Your task to perform on an android device: clear all cookies in the chrome app Image 0: 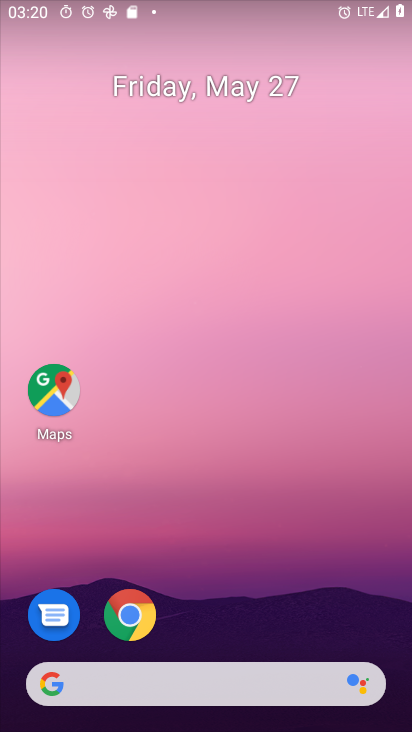
Step 0: drag from (367, 636) to (368, 135)
Your task to perform on an android device: clear all cookies in the chrome app Image 1: 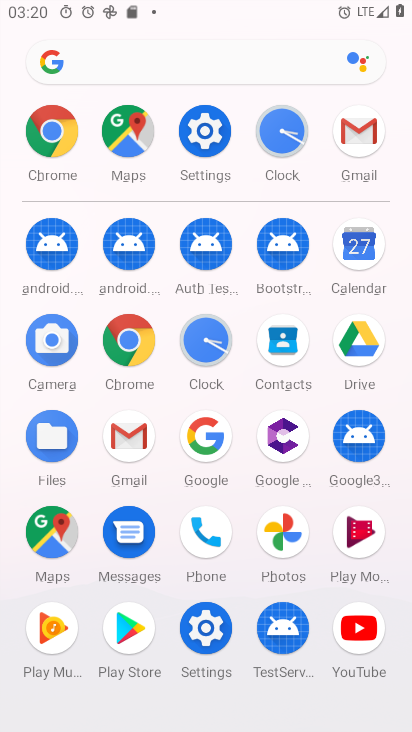
Step 1: click (133, 361)
Your task to perform on an android device: clear all cookies in the chrome app Image 2: 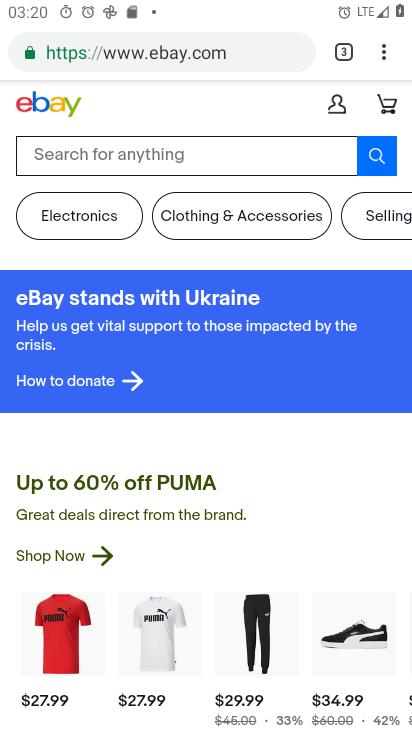
Step 2: click (382, 57)
Your task to perform on an android device: clear all cookies in the chrome app Image 3: 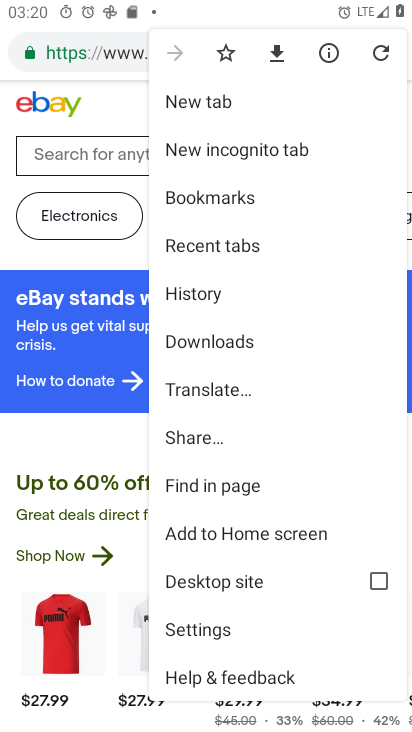
Step 3: click (222, 635)
Your task to perform on an android device: clear all cookies in the chrome app Image 4: 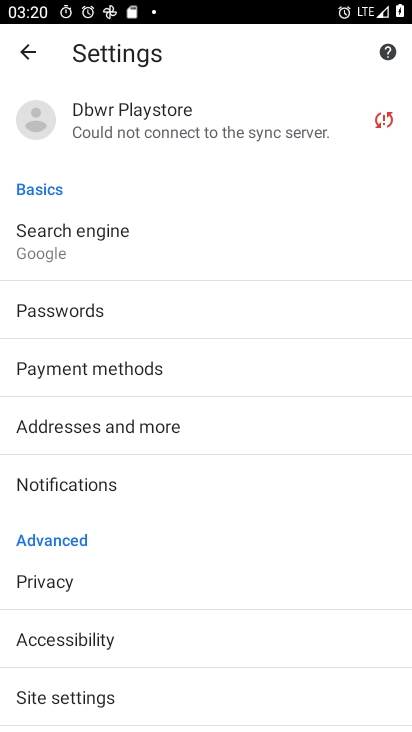
Step 4: drag from (233, 603) to (244, 528)
Your task to perform on an android device: clear all cookies in the chrome app Image 5: 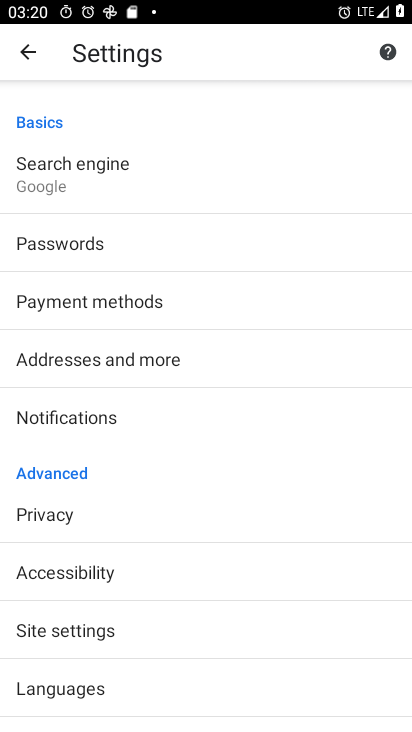
Step 5: drag from (245, 638) to (254, 538)
Your task to perform on an android device: clear all cookies in the chrome app Image 6: 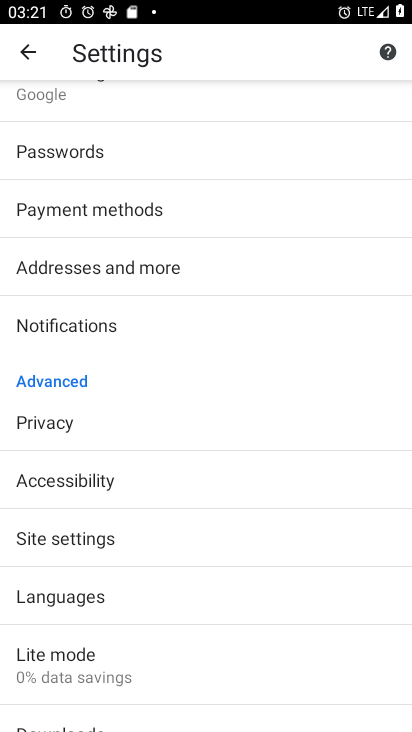
Step 6: drag from (302, 673) to (308, 487)
Your task to perform on an android device: clear all cookies in the chrome app Image 7: 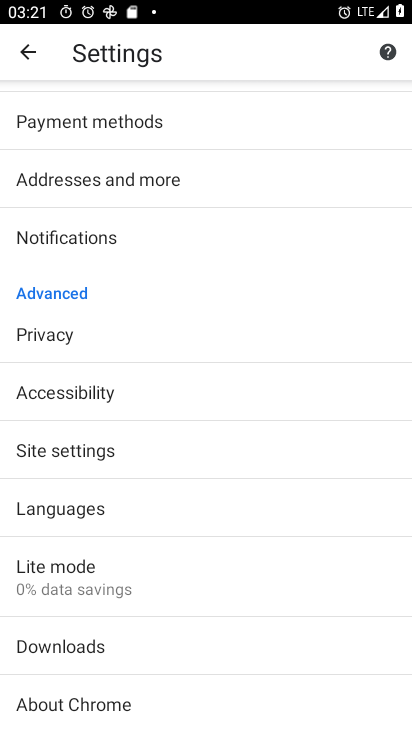
Step 7: drag from (307, 657) to (311, 460)
Your task to perform on an android device: clear all cookies in the chrome app Image 8: 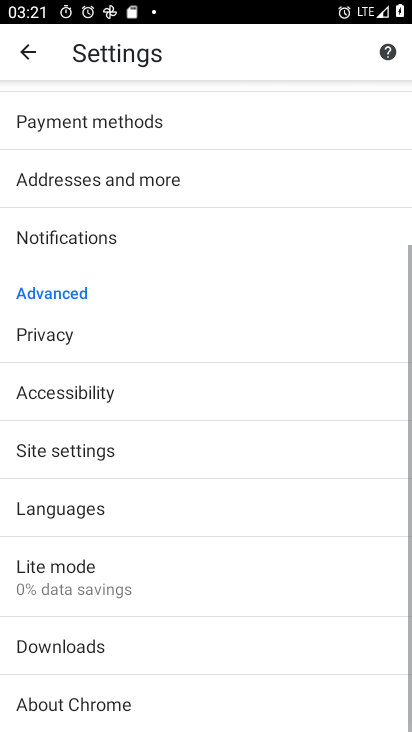
Step 8: drag from (311, 425) to (310, 562)
Your task to perform on an android device: clear all cookies in the chrome app Image 9: 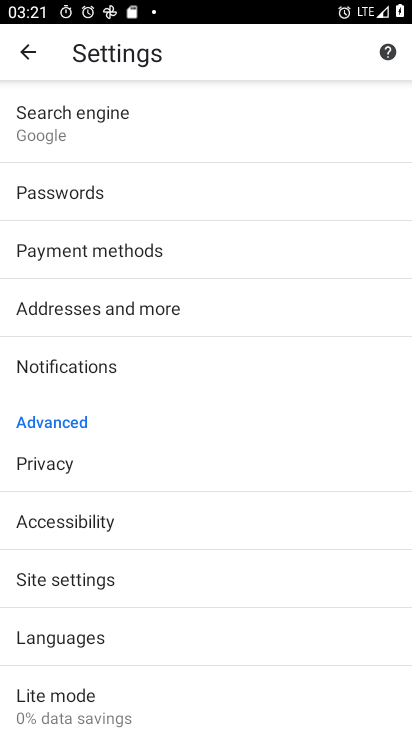
Step 9: click (262, 473)
Your task to perform on an android device: clear all cookies in the chrome app Image 10: 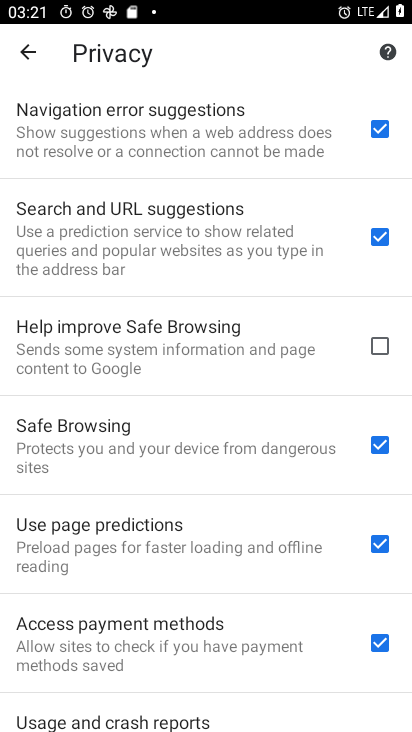
Step 10: drag from (298, 588) to (303, 513)
Your task to perform on an android device: clear all cookies in the chrome app Image 11: 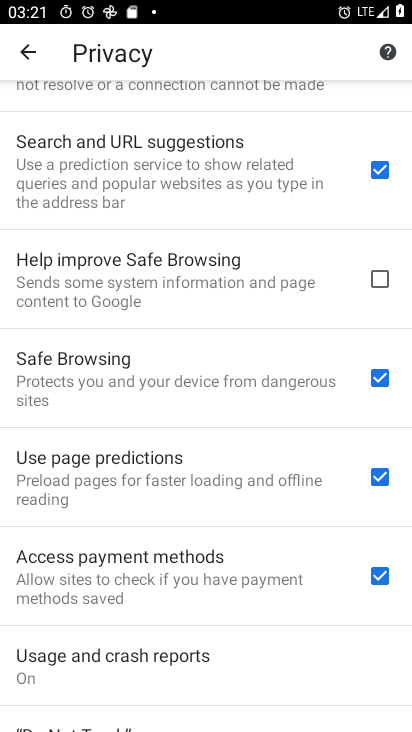
Step 11: drag from (328, 611) to (331, 488)
Your task to perform on an android device: clear all cookies in the chrome app Image 12: 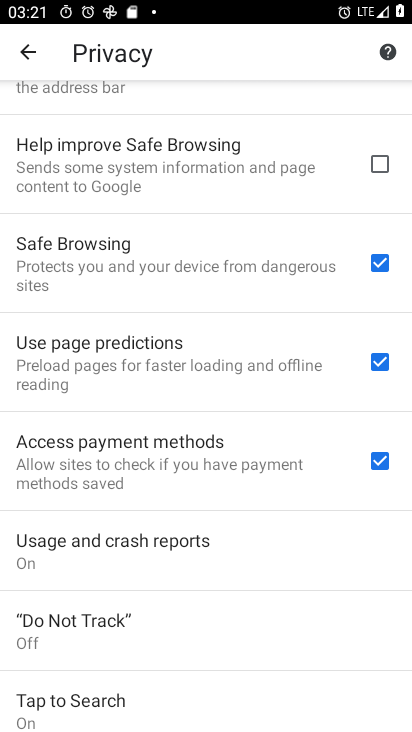
Step 12: drag from (323, 568) to (321, 501)
Your task to perform on an android device: clear all cookies in the chrome app Image 13: 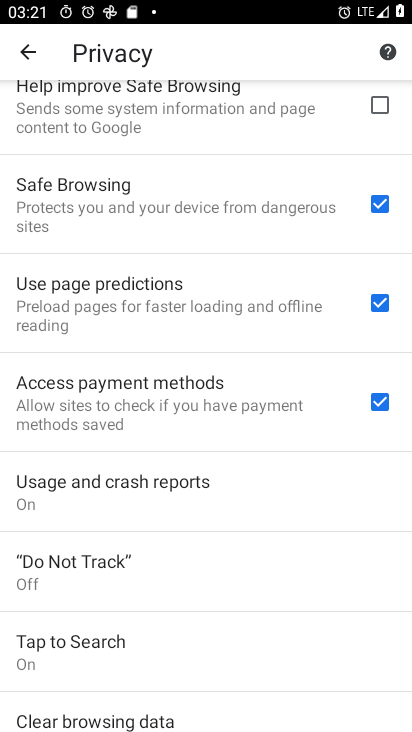
Step 13: drag from (283, 657) to (282, 511)
Your task to perform on an android device: clear all cookies in the chrome app Image 14: 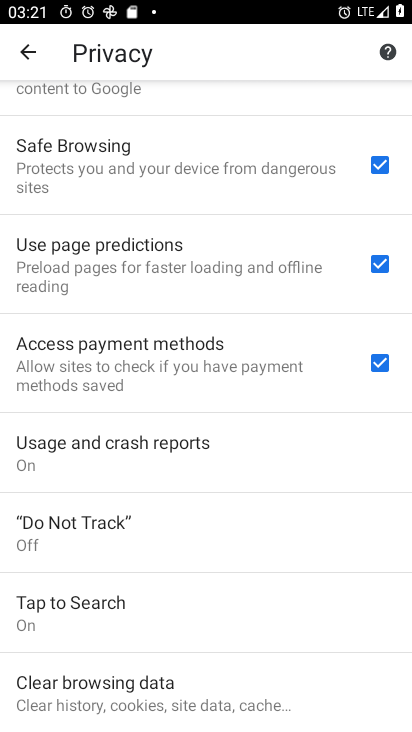
Step 14: click (253, 691)
Your task to perform on an android device: clear all cookies in the chrome app Image 15: 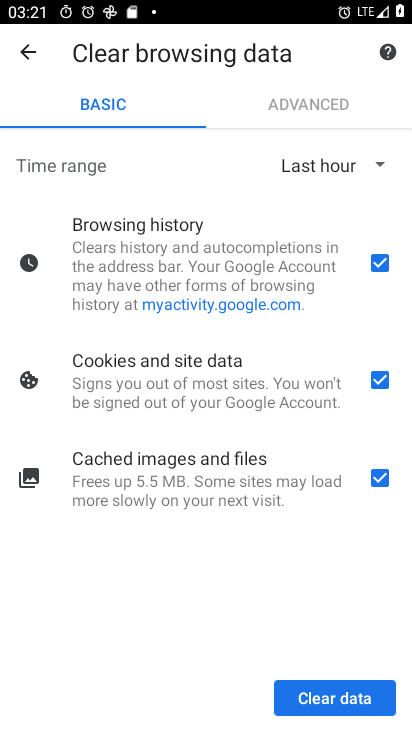
Step 15: click (328, 704)
Your task to perform on an android device: clear all cookies in the chrome app Image 16: 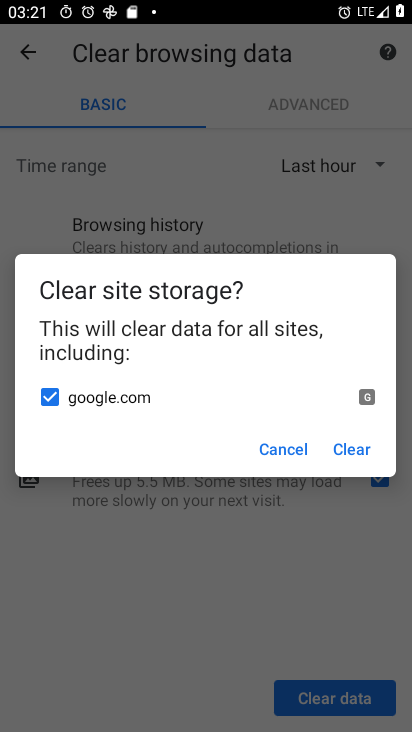
Step 16: click (349, 440)
Your task to perform on an android device: clear all cookies in the chrome app Image 17: 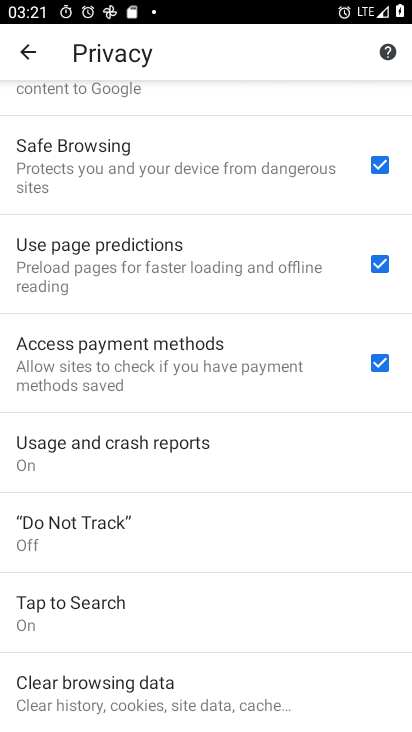
Step 17: task complete